Your task to perform on an android device: find photos in the google photos app Image 0: 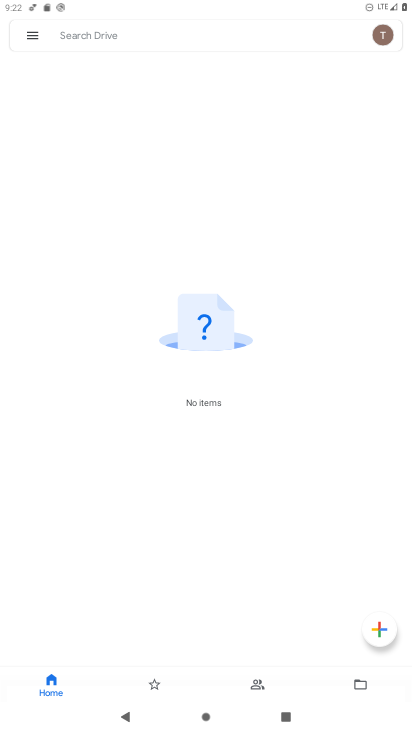
Step 0: press home button
Your task to perform on an android device: find photos in the google photos app Image 1: 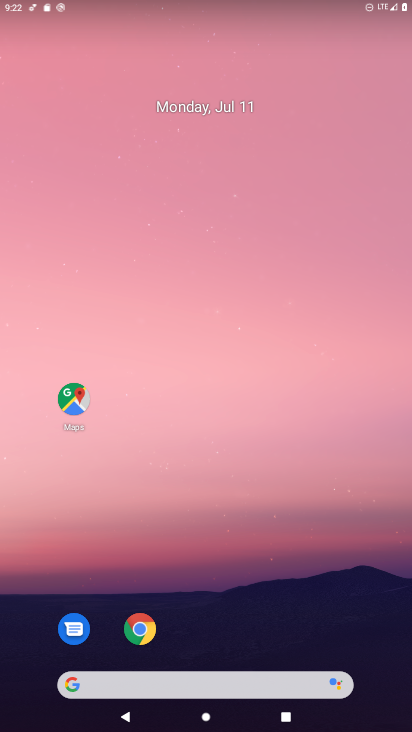
Step 1: drag from (205, 619) to (248, 38)
Your task to perform on an android device: find photos in the google photos app Image 2: 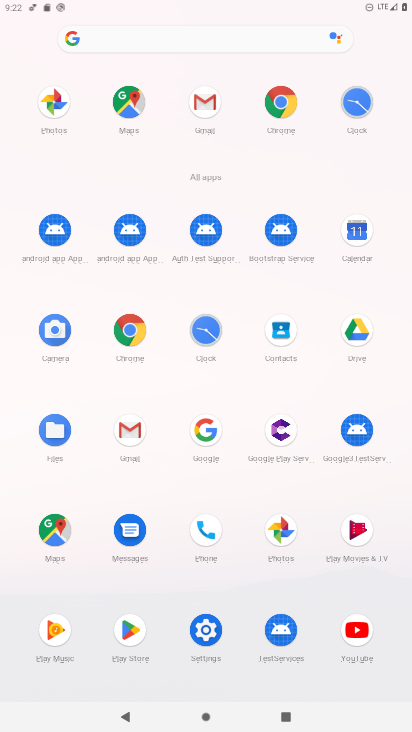
Step 2: click (47, 106)
Your task to perform on an android device: find photos in the google photos app Image 3: 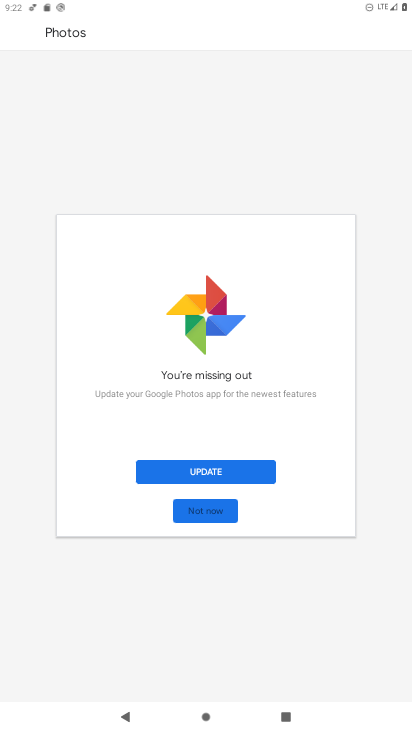
Step 3: click (208, 511)
Your task to perform on an android device: find photos in the google photos app Image 4: 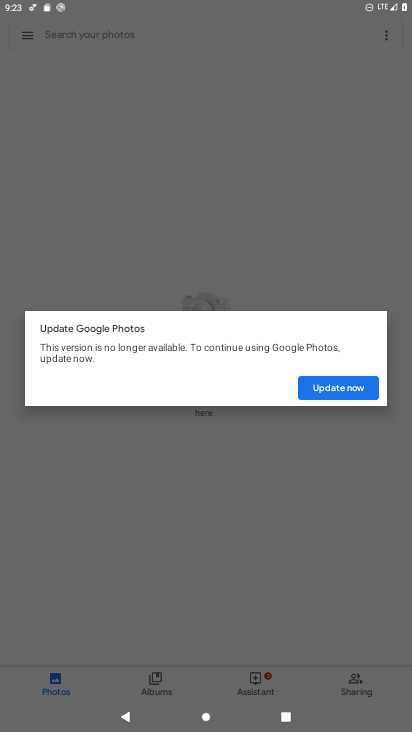
Step 4: click (324, 385)
Your task to perform on an android device: find photos in the google photos app Image 5: 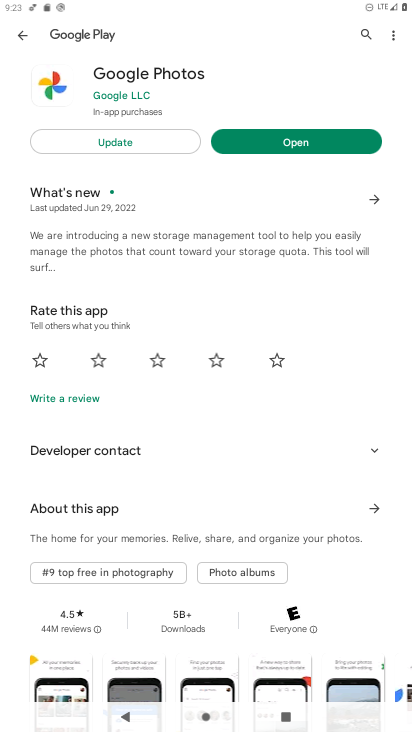
Step 5: click (347, 147)
Your task to perform on an android device: find photos in the google photos app Image 6: 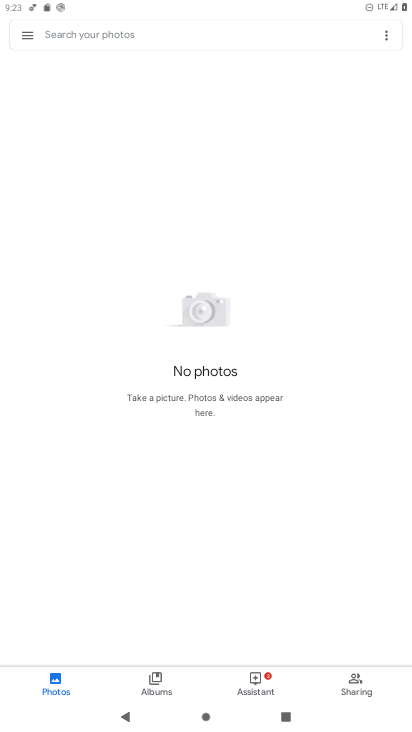
Step 6: click (347, 147)
Your task to perform on an android device: find photos in the google photos app Image 7: 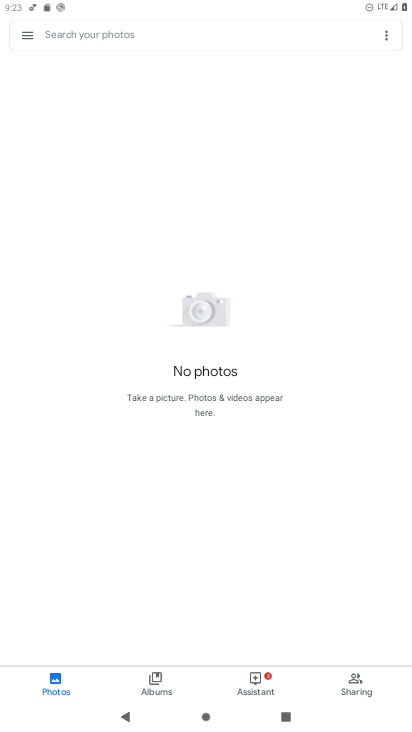
Step 7: task complete